Your task to perform on an android device: Search for the new nike air max shoes on Nike. Image 0: 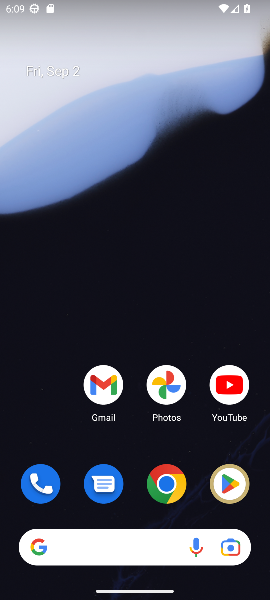
Step 0: click (168, 486)
Your task to perform on an android device: Search for the new nike air max shoes on Nike. Image 1: 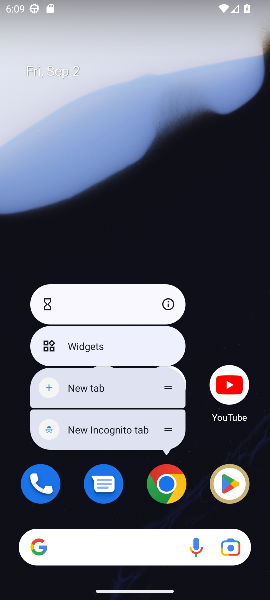
Step 1: click (168, 486)
Your task to perform on an android device: Search for the new nike air max shoes on Nike. Image 2: 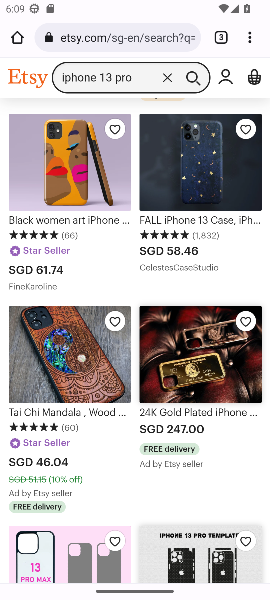
Step 2: click (158, 34)
Your task to perform on an android device: Search for the new nike air max shoes on Nike. Image 3: 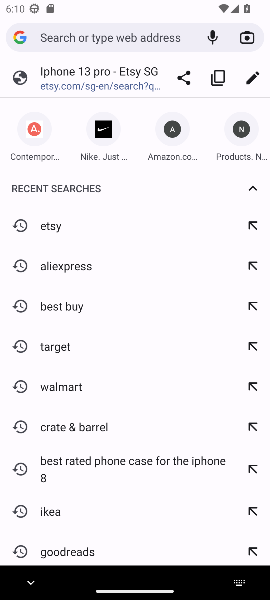
Step 3: type "Nike"
Your task to perform on an android device: Search for the new nike air max shoes on Nike. Image 4: 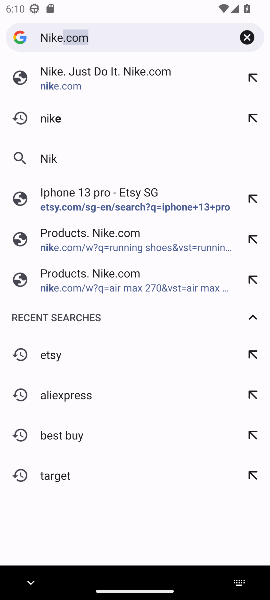
Step 4: press enter
Your task to perform on an android device: Search for the new nike air max shoes on Nike. Image 5: 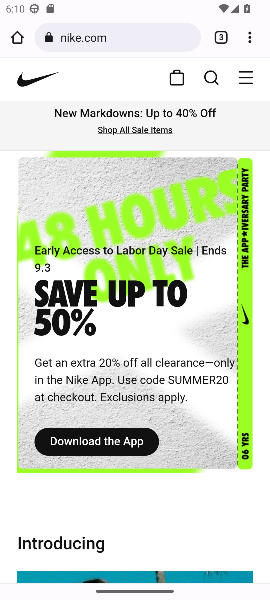
Step 5: click (212, 76)
Your task to perform on an android device: Search for the new nike air max shoes on Nike. Image 6: 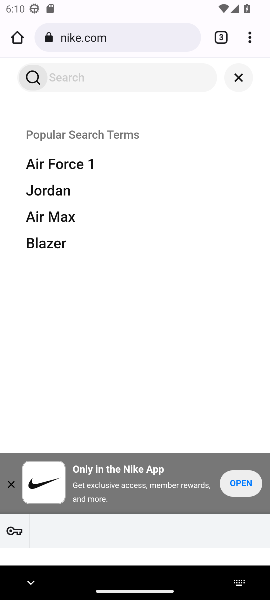
Step 6: type "air max shoes"
Your task to perform on an android device: Search for the new nike air max shoes on Nike. Image 7: 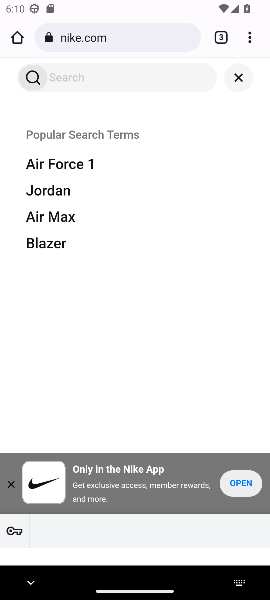
Step 7: press enter
Your task to perform on an android device: Search for the new nike air max shoes on Nike. Image 8: 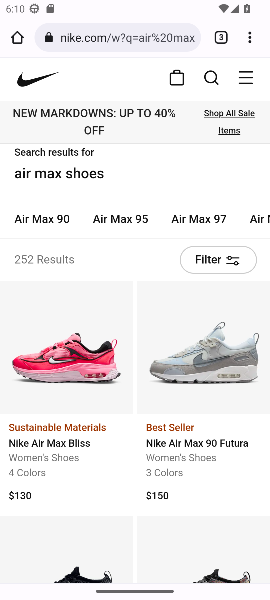
Step 8: task complete